Your task to perform on an android device: clear all cookies in the chrome app Image 0: 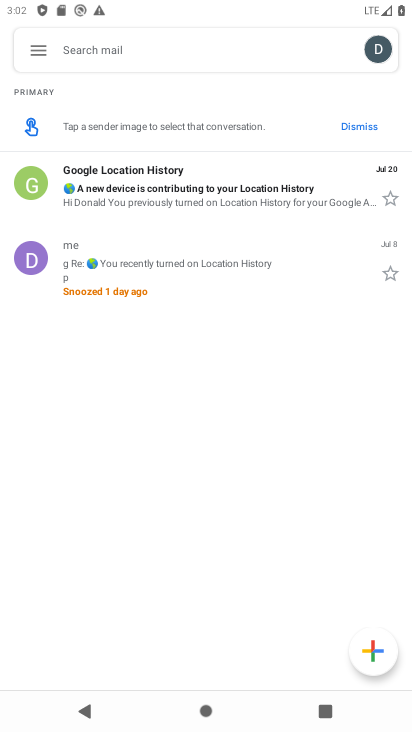
Step 0: press home button
Your task to perform on an android device: clear all cookies in the chrome app Image 1: 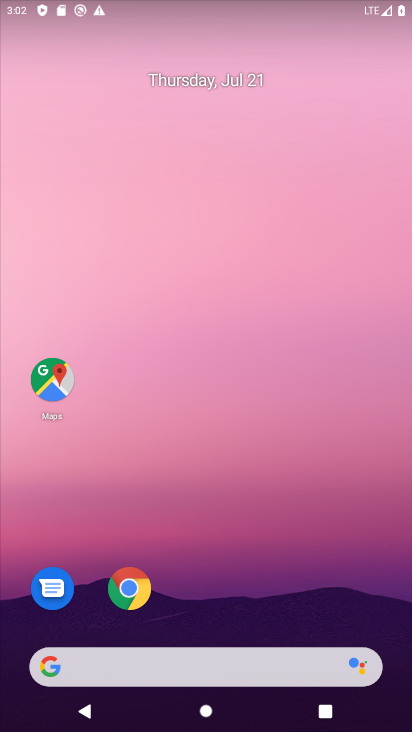
Step 1: click (124, 590)
Your task to perform on an android device: clear all cookies in the chrome app Image 2: 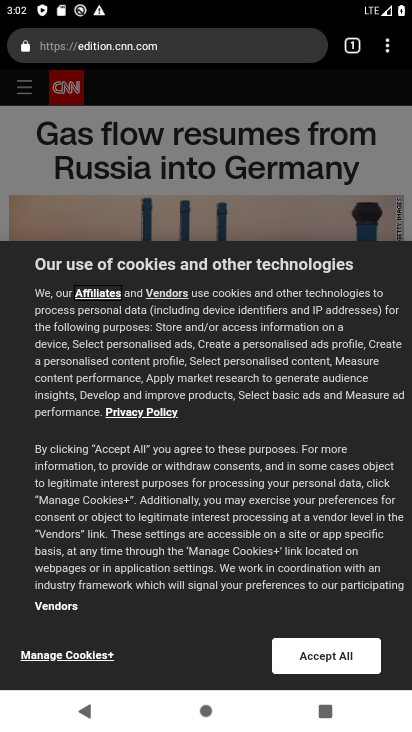
Step 2: click (391, 46)
Your task to perform on an android device: clear all cookies in the chrome app Image 3: 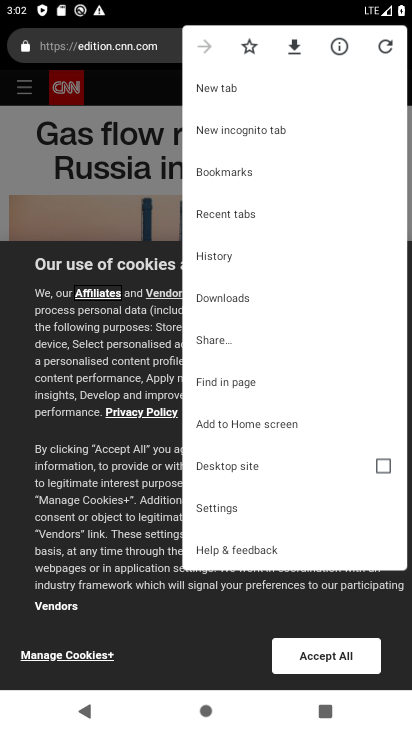
Step 3: click (243, 254)
Your task to perform on an android device: clear all cookies in the chrome app Image 4: 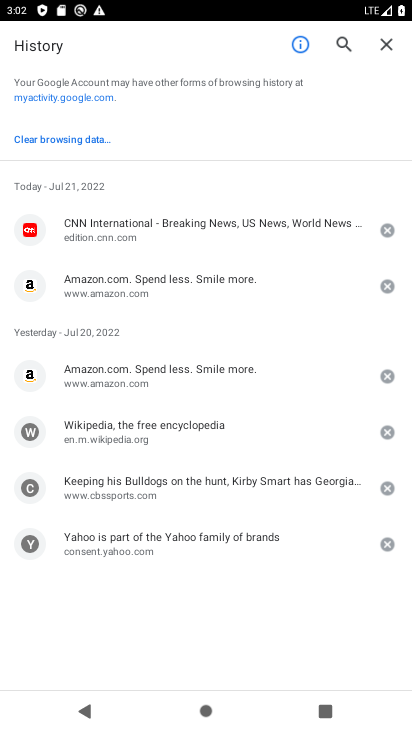
Step 4: click (53, 146)
Your task to perform on an android device: clear all cookies in the chrome app Image 5: 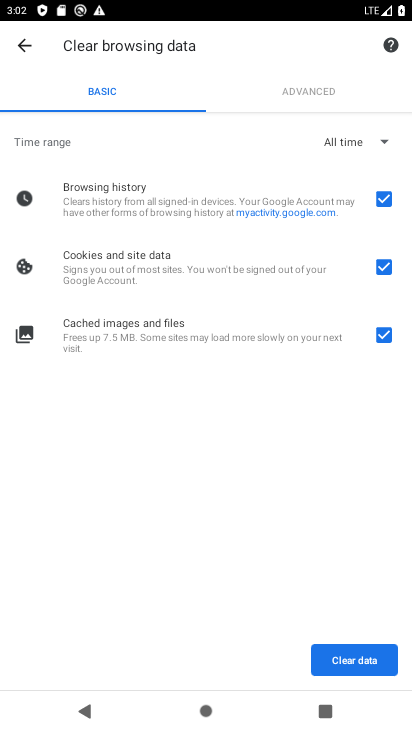
Step 5: click (385, 193)
Your task to perform on an android device: clear all cookies in the chrome app Image 6: 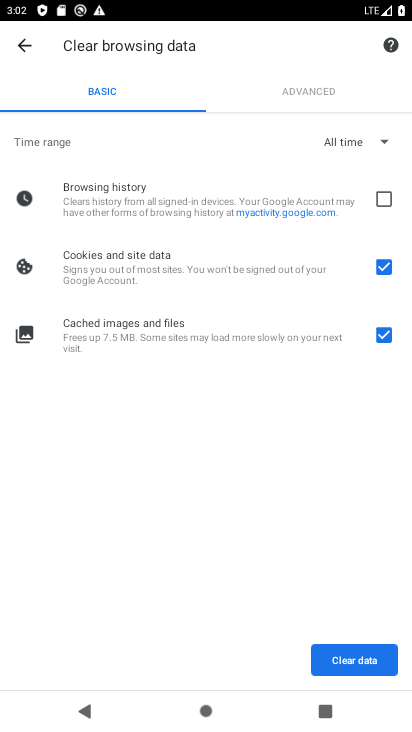
Step 6: click (390, 326)
Your task to perform on an android device: clear all cookies in the chrome app Image 7: 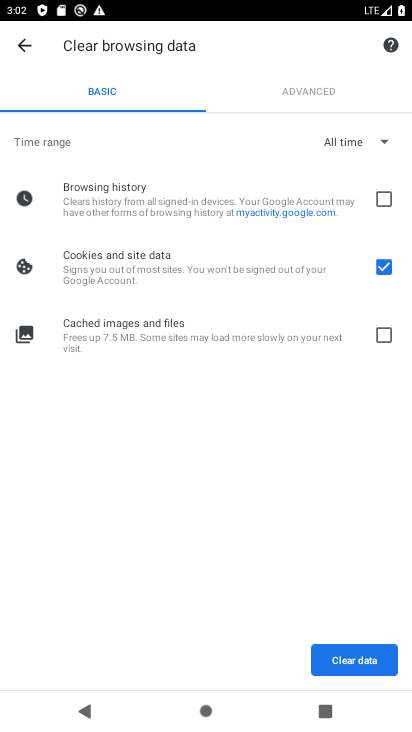
Step 7: click (346, 658)
Your task to perform on an android device: clear all cookies in the chrome app Image 8: 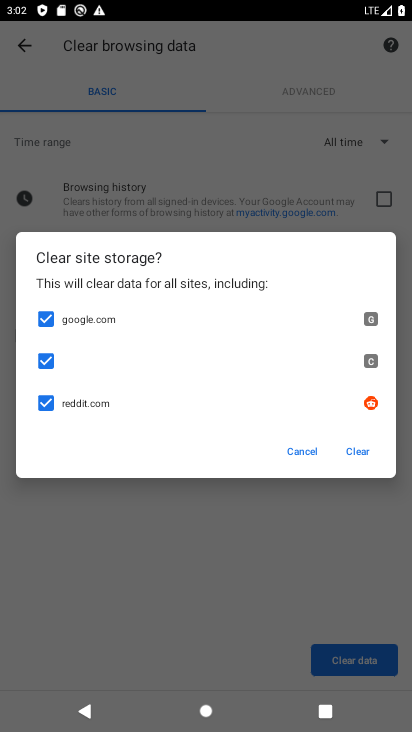
Step 8: click (356, 453)
Your task to perform on an android device: clear all cookies in the chrome app Image 9: 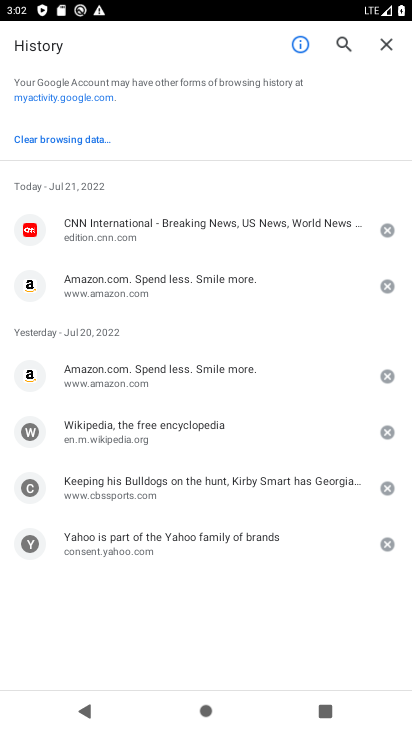
Step 9: task complete